Your task to perform on an android device: set an alarm Image 0: 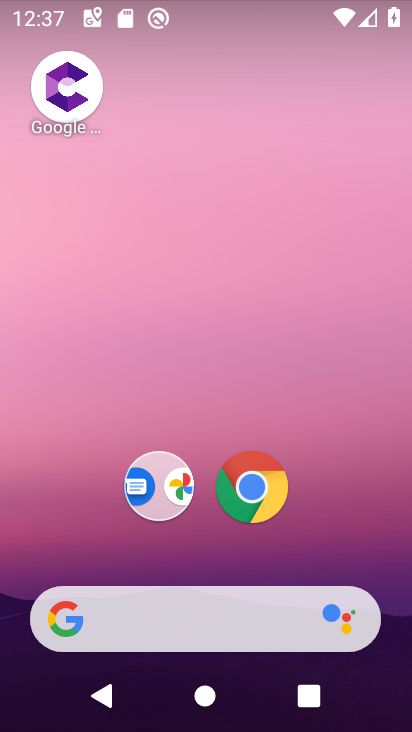
Step 0: drag from (337, 644) to (254, 267)
Your task to perform on an android device: set an alarm Image 1: 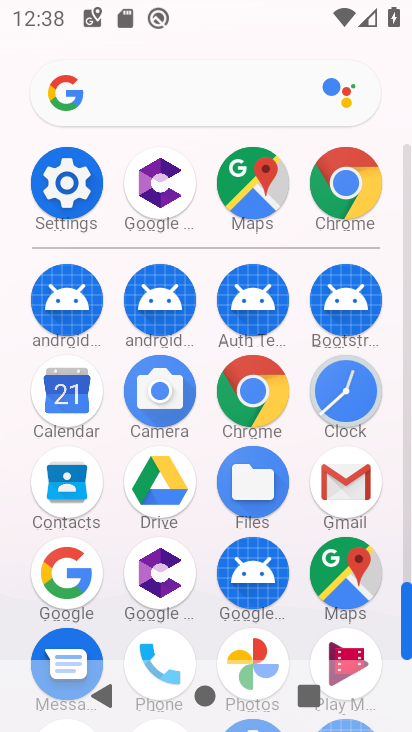
Step 1: click (342, 399)
Your task to perform on an android device: set an alarm Image 2: 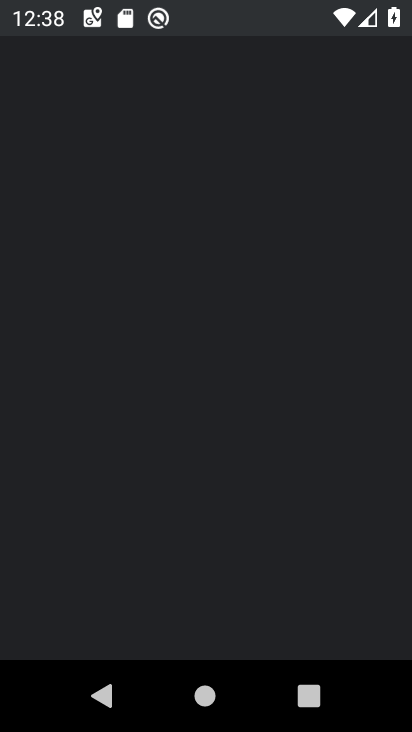
Step 2: click (327, 322)
Your task to perform on an android device: set an alarm Image 3: 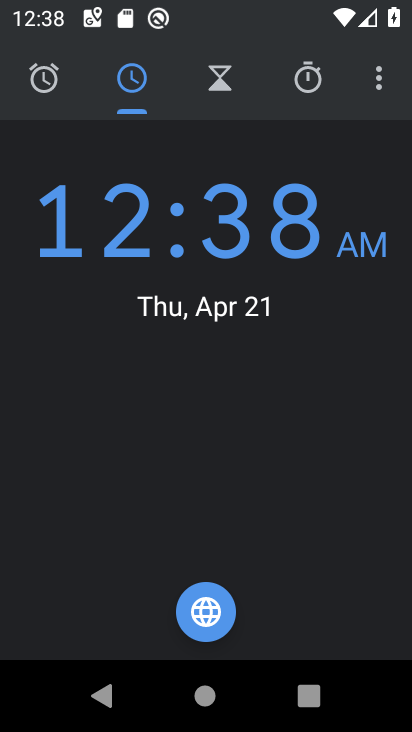
Step 3: click (368, 92)
Your task to perform on an android device: set an alarm Image 4: 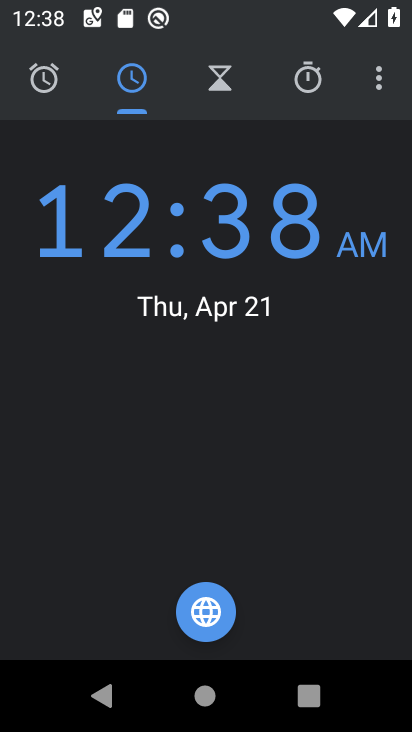
Step 4: click (369, 71)
Your task to perform on an android device: set an alarm Image 5: 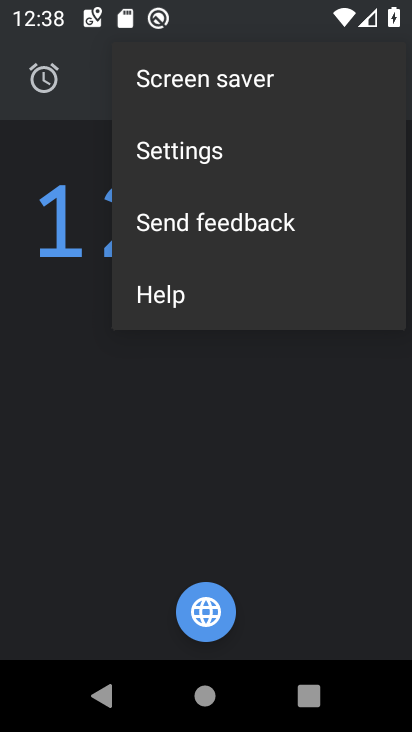
Step 5: click (156, 153)
Your task to perform on an android device: set an alarm Image 6: 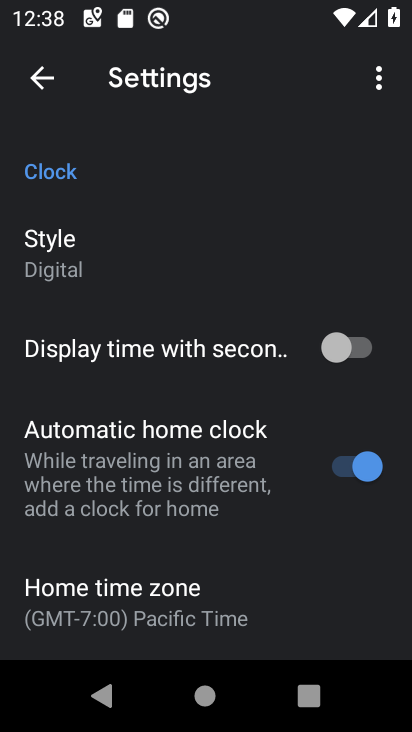
Step 6: drag from (188, 533) to (171, 374)
Your task to perform on an android device: set an alarm Image 7: 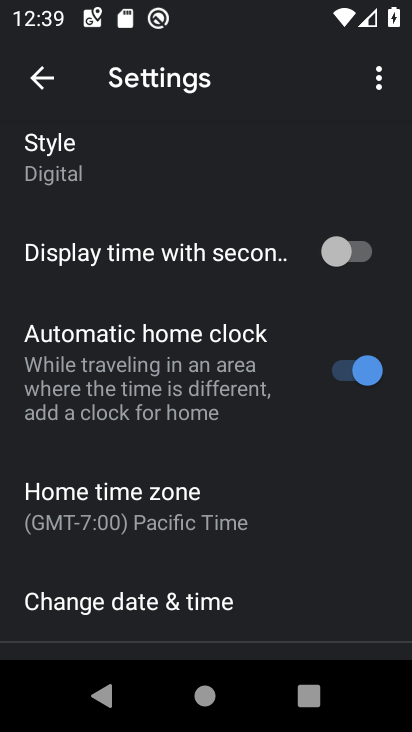
Step 7: click (49, 87)
Your task to perform on an android device: set an alarm Image 8: 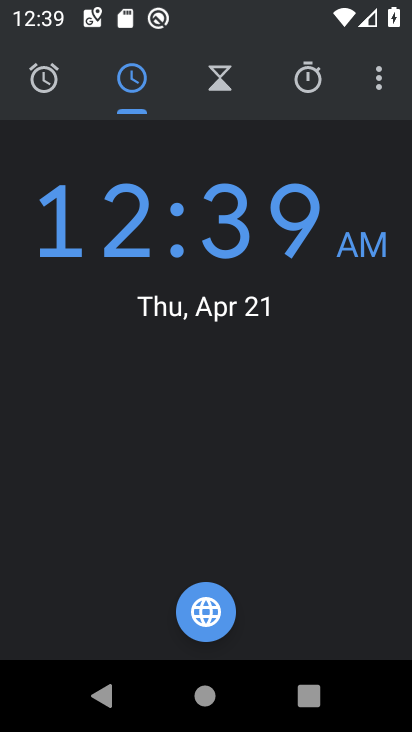
Step 8: click (52, 90)
Your task to perform on an android device: set an alarm Image 9: 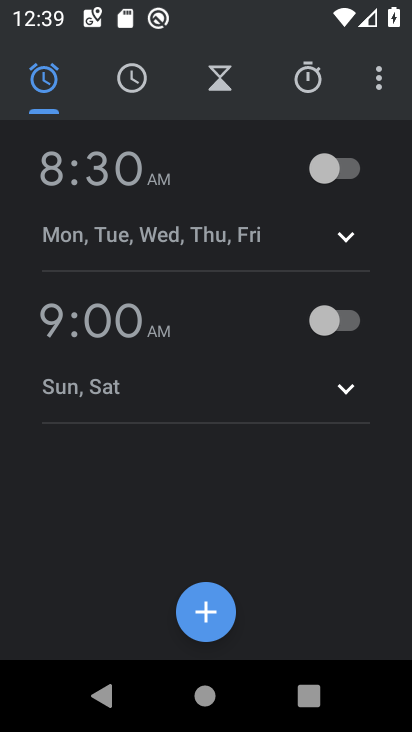
Step 9: click (230, 205)
Your task to perform on an android device: set an alarm Image 10: 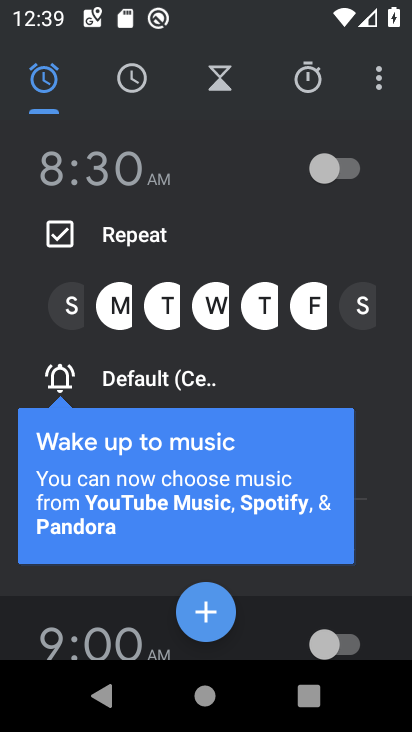
Step 10: click (110, 178)
Your task to perform on an android device: set an alarm Image 11: 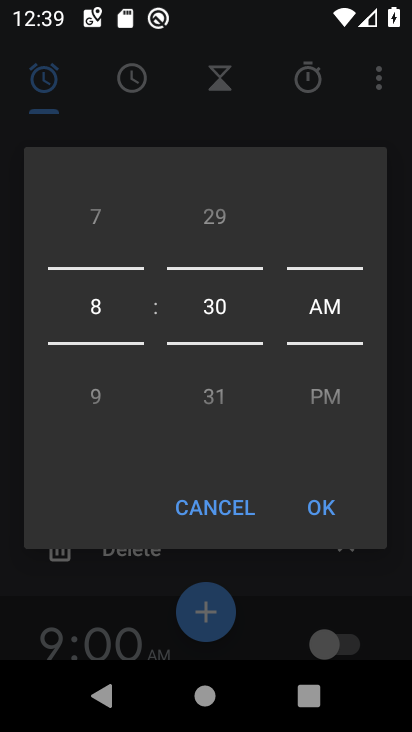
Step 11: click (105, 376)
Your task to perform on an android device: set an alarm Image 12: 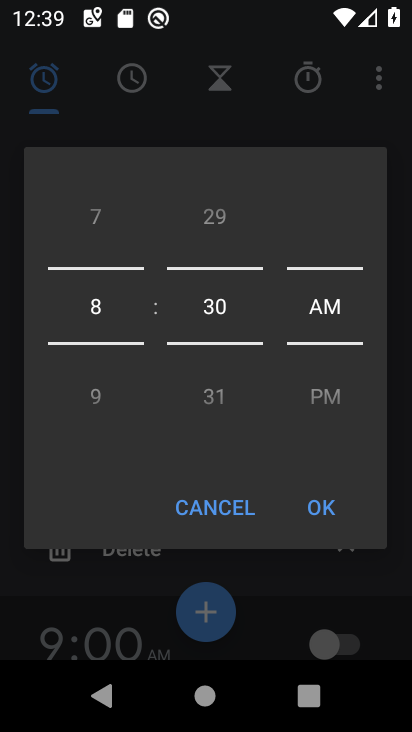
Step 12: click (106, 400)
Your task to perform on an android device: set an alarm Image 13: 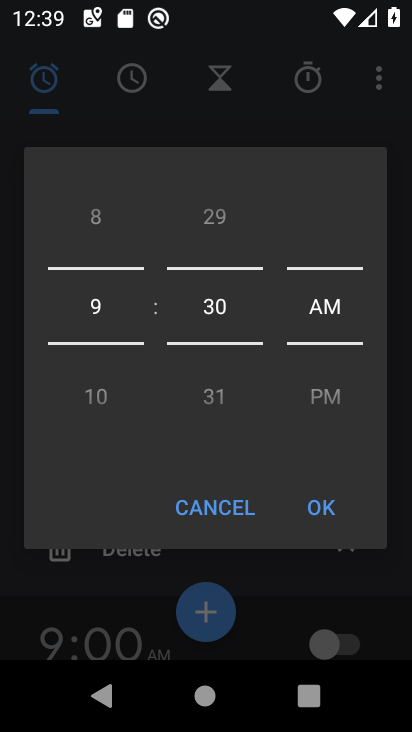
Step 13: click (109, 394)
Your task to perform on an android device: set an alarm Image 14: 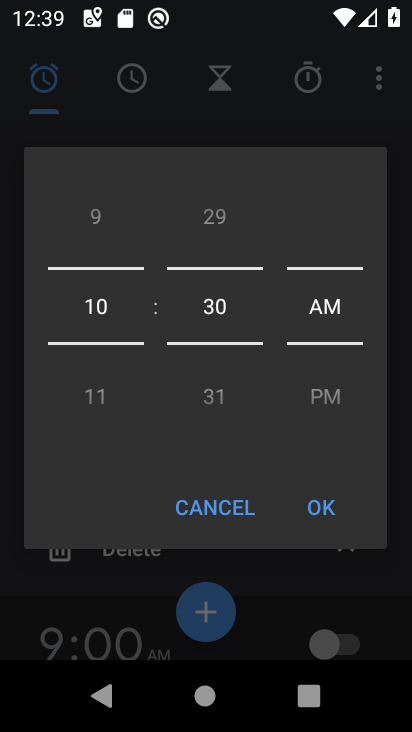
Step 14: click (314, 390)
Your task to perform on an android device: set an alarm Image 15: 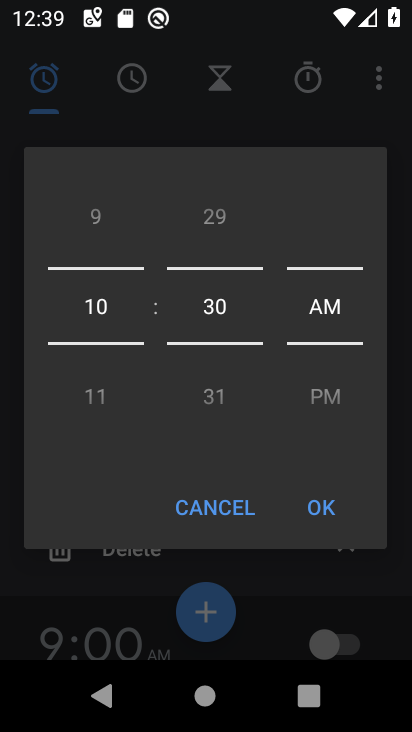
Step 15: click (313, 502)
Your task to perform on an android device: set an alarm Image 16: 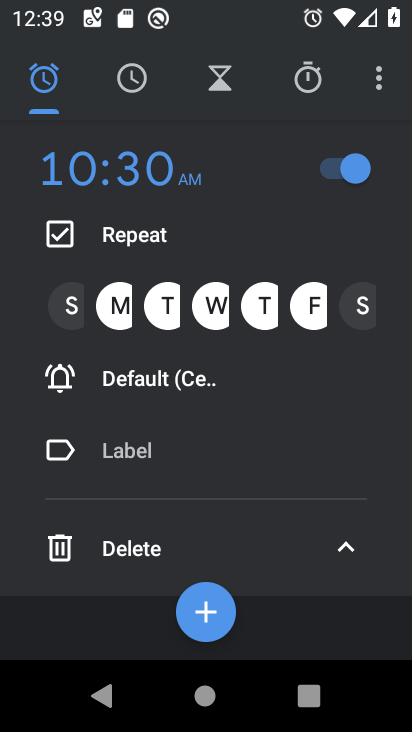
Step 16: task complete